Your task to perform on an android device: check storage Image 0: 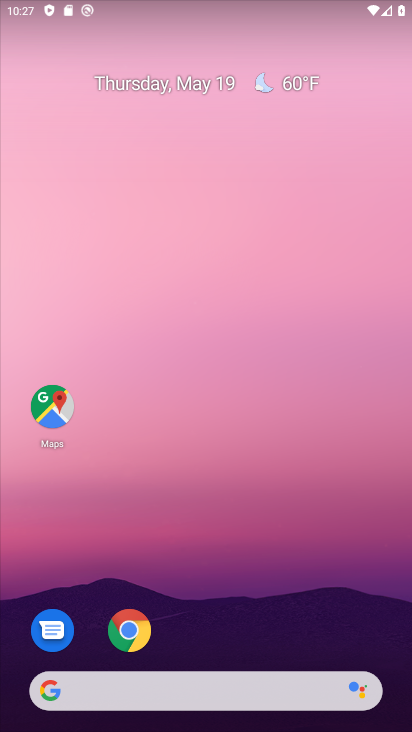
Step 0: drag from (286, 662) to (210, 99)
Your task to perform on an android device: check storage Image 1: 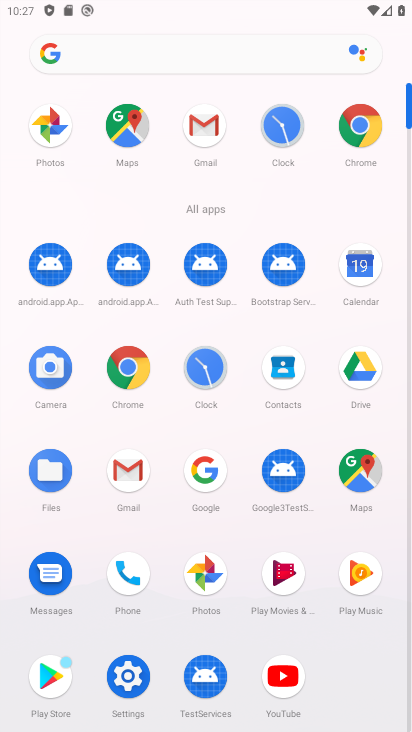
Step 1: click (135, 668)
Your task to perform on an android device: check storage Image 2: 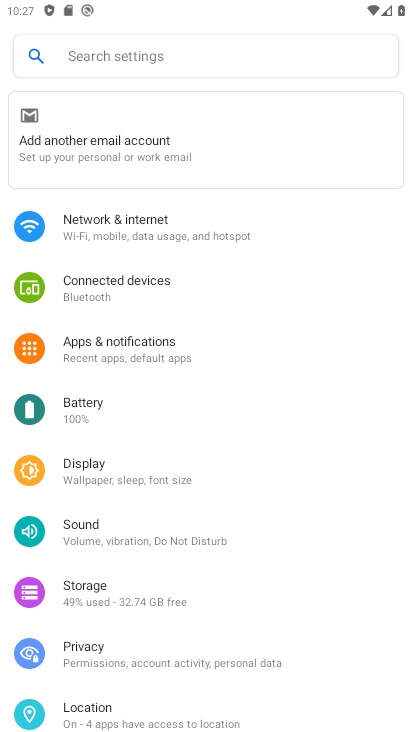
Step 2: click (77, 595)
Your task to perform on an android device: check storage Image 3: 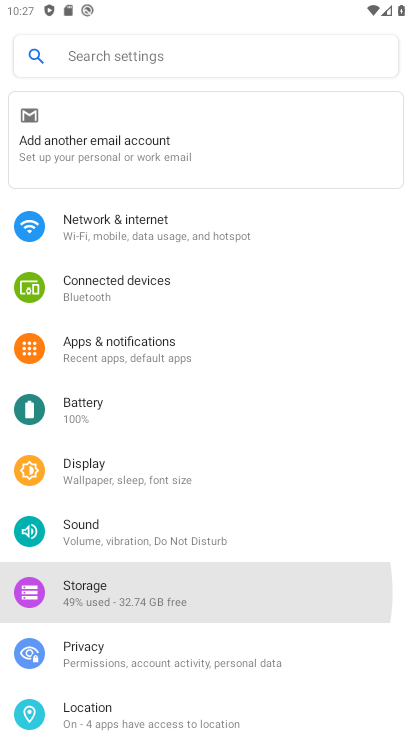
Step 3: click (81, 592)
Your task to perform on an android device: check storage Image 4: 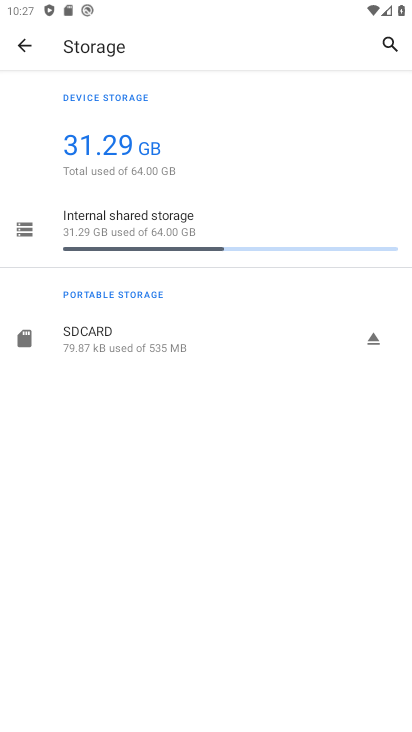
Step 4: task complete